Your task to perform on an android device: change the clock display to analog Image 0: 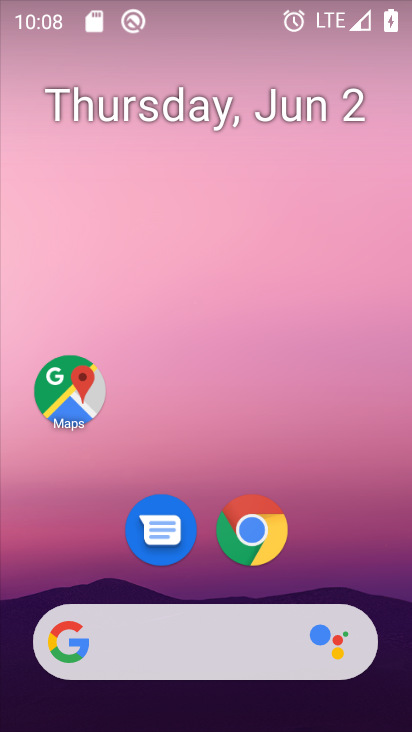
Step 0: drag from (194, 545) to (244, 268)
Your task to perform on an android device: change the clock display to analog Image 1: 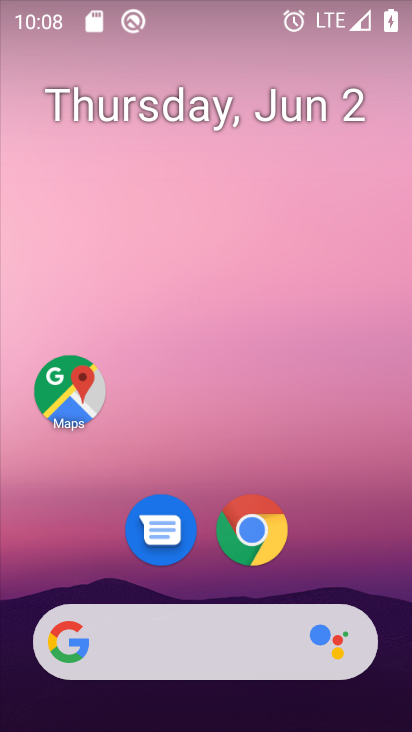
Step 1: drag from (212, 593) to (285, 252)
Your task to perform on an android device: change the clock display to analog Image 2: 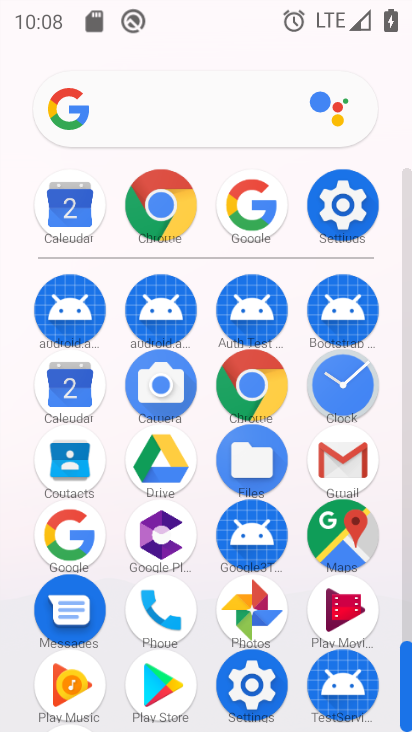
Step 2: click (332, 385)
Your task to perform on an android device: change the clock display to analog Image 3: 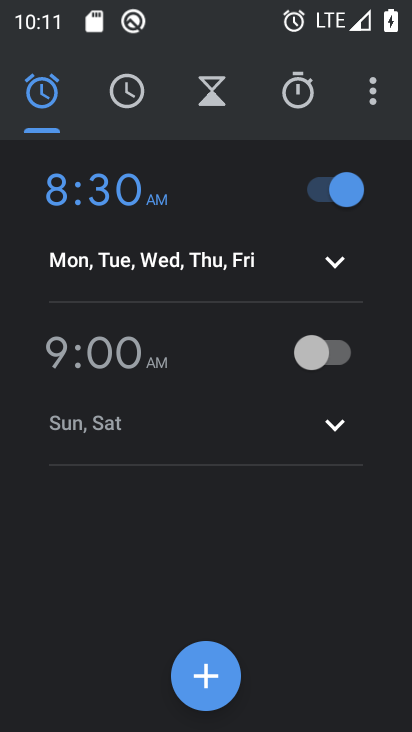
Step 3: click (379, 104)
Your task to perform on an android device: change the clock display to analog Image 4: 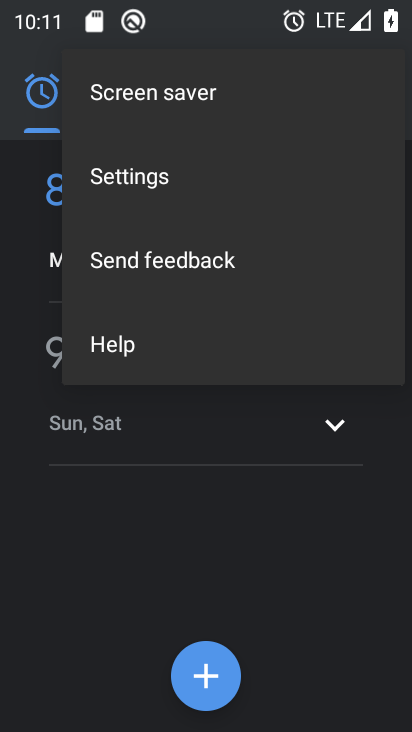
Step 4: click (153, 181)
Your task to perform on an android device: change the clock display to analog Image 5: 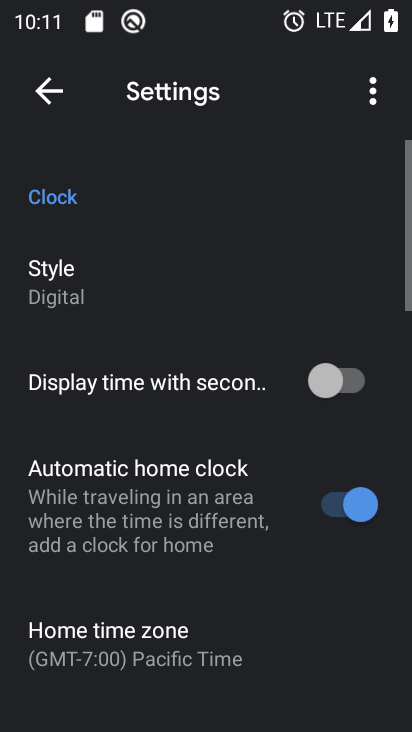
Step 5: click (83, 287)
Your task to perform on an android device: change the clock display to analog Image 6: 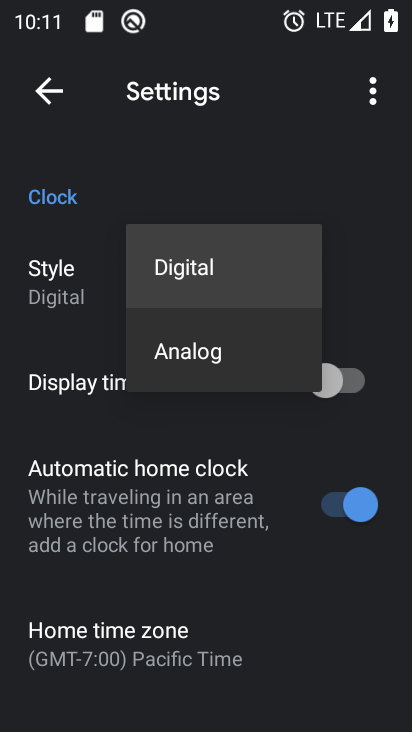
Step 6: click (168, 351)
Your task to perform on an android device: change the clock display to analog Image 7: 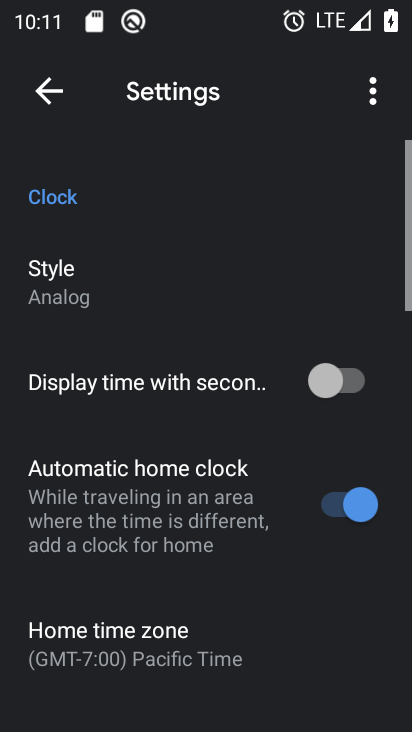
Step 7: task complete